Your task to perform on an android device: Open eBay Image 0: 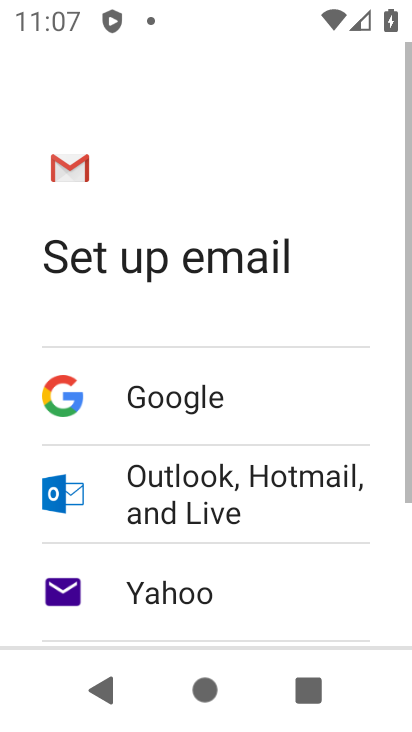
Step 0: press back button
Your task to perform on an android device: Open eBay Image 1: 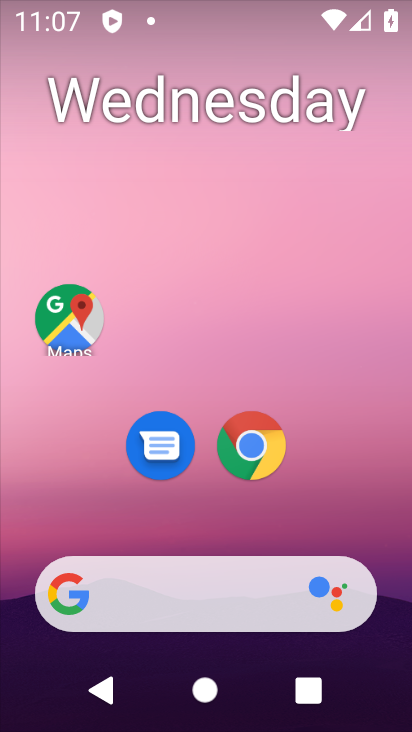
Step 1: click (261, 443)
Your task to perform on an android device: Open eBay Image 2: 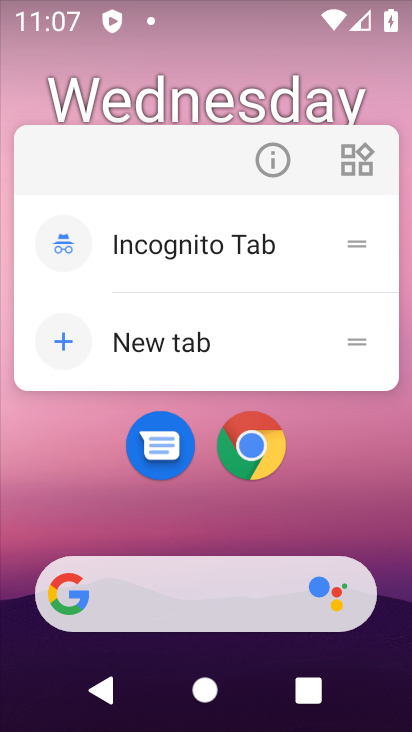
Step 2: click (255, 445)
Your task to perform on an android device: Open eBay Image 3: 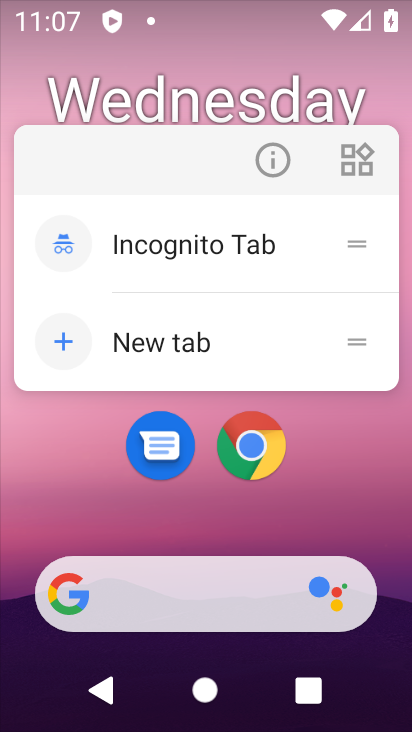
Step 3: click (257, 444)
Your task to perform on an android device: Open eBay Image 4: 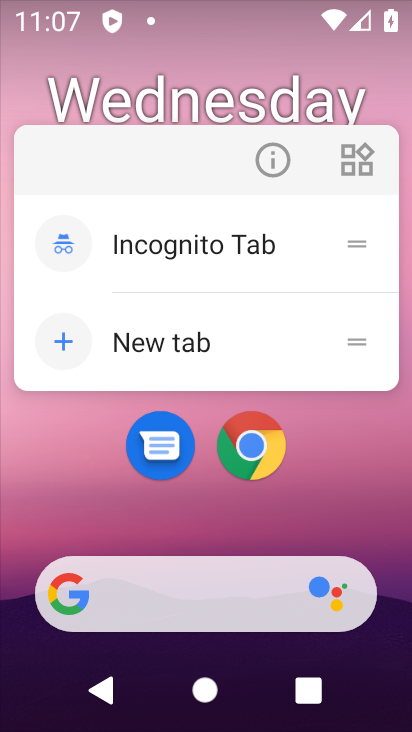
Step 4: click (250, 439)
Your task to perform on an android device: Open eBay Image 5: 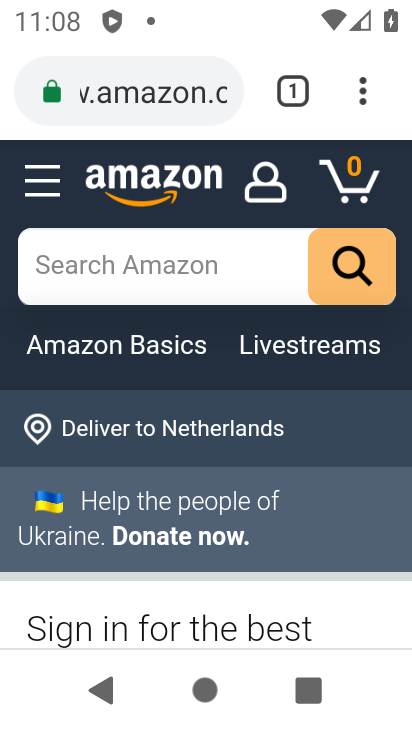
Step 5: click (299, 96)
Your task to perform on an android device: Open eBay Image 6: 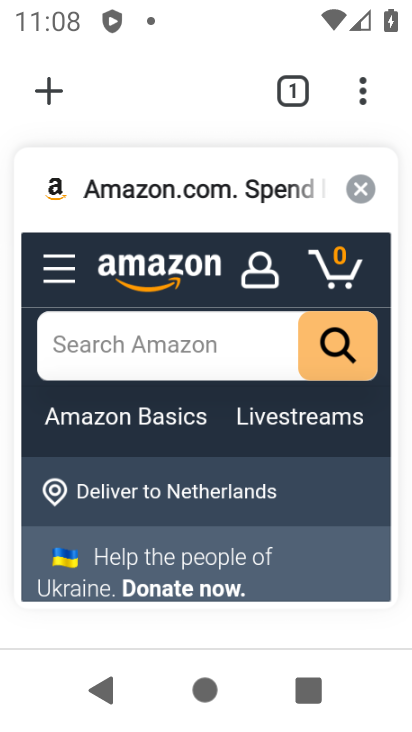
Step 6: click (44, 93)
Your task to perform on an android device: Open eBay Image 7: 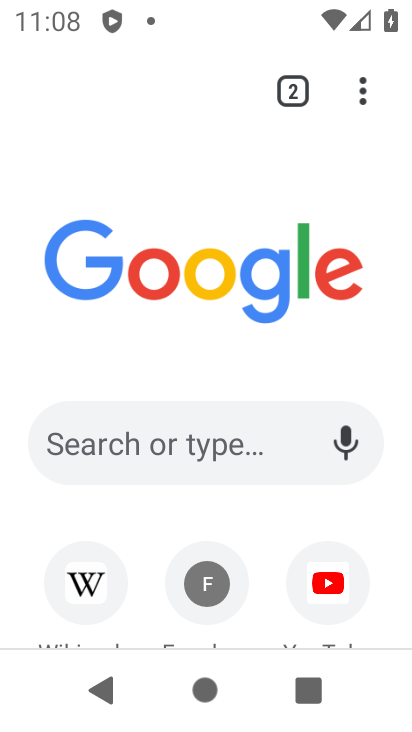
Step 7: drag from (209, 503) to (279, 70)
Your task to perform on an android device: Open eBay Image 8: 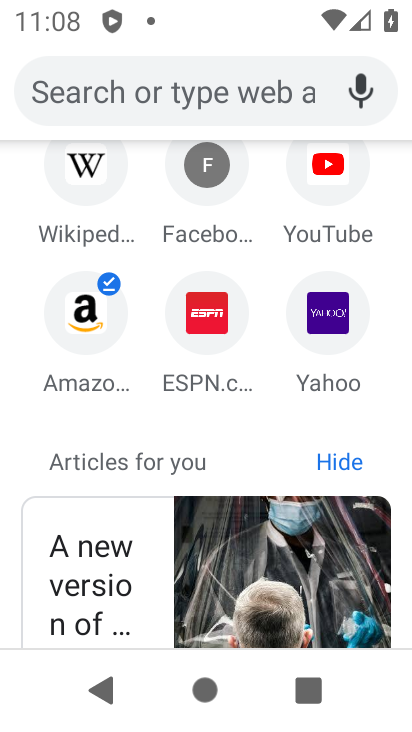
Step 8: click (142, 97)
Your task to perform on an android device: Open eBay Image 9: 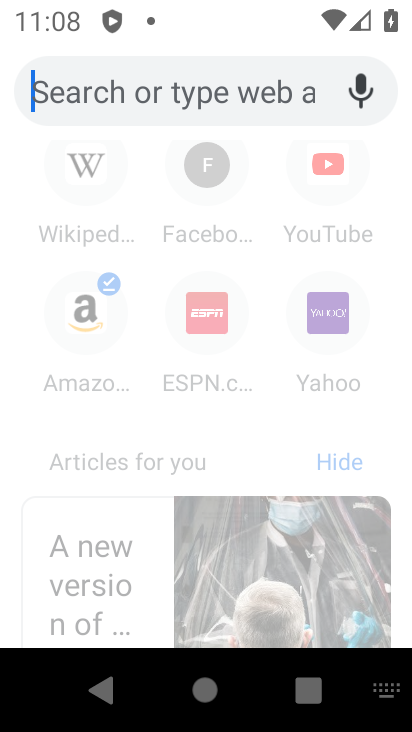
Step 9: type "ebay"
Your task to perform on an android device: Open eBay Image 10: 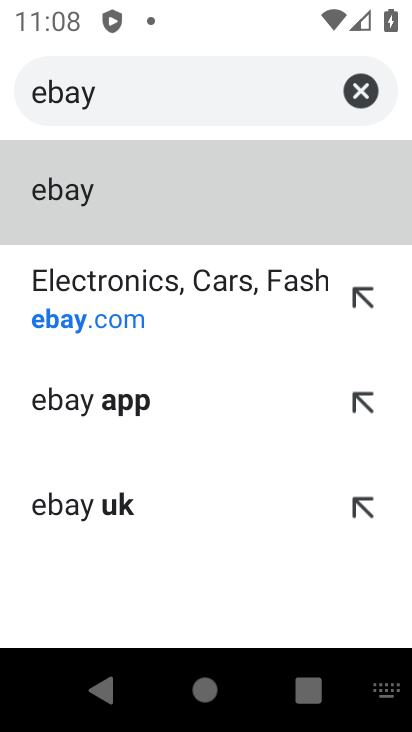
Step 10: click (108, 187)
Your task to perform on an android device: Open eBay Image 11: 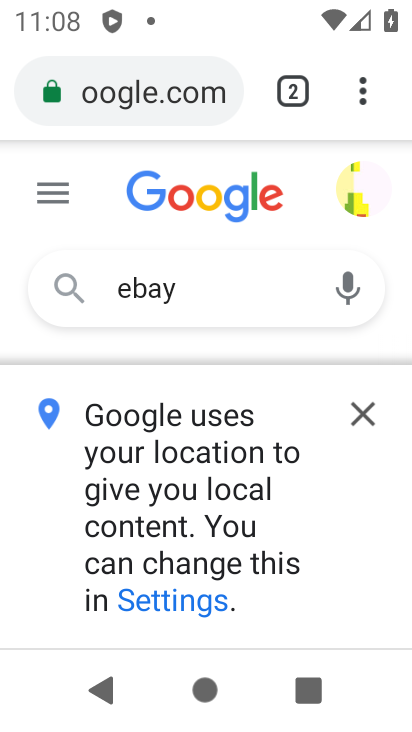
Step 11: click (379, 401)
Your task to perform on an android device: Open eBay Image 12: 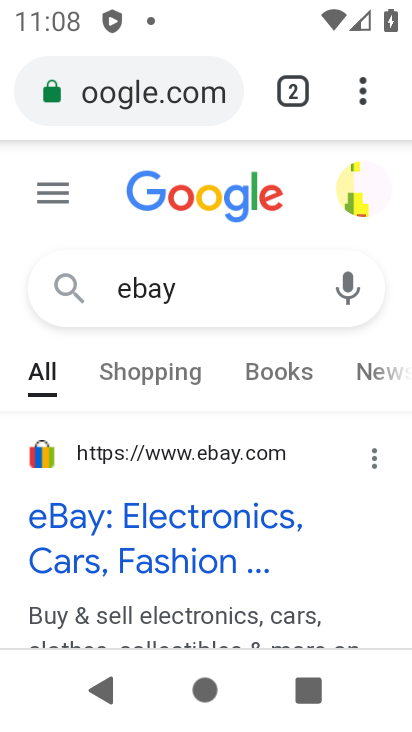
Step 12: click (192, 521)
Your task to perform on an android device: Open eBay Image 13: 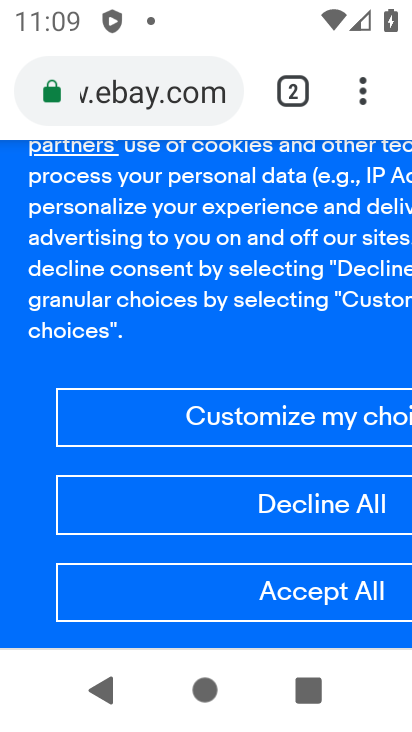
Step 13: task complete